Your task to perform on an android device: delete a single message in the gmail app Image 0: 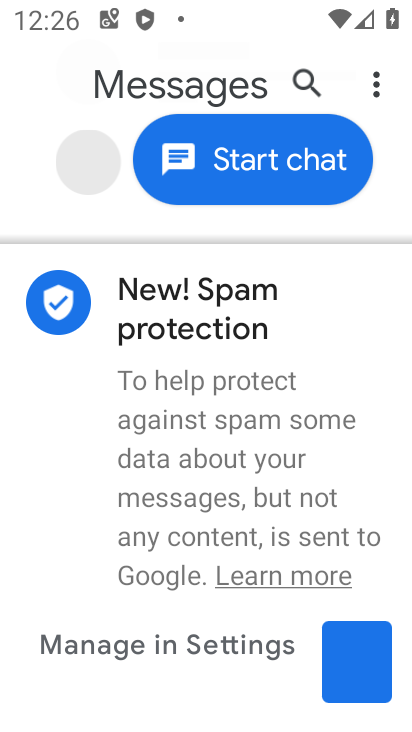
Step 0: press home button
Your task to perform on an android device: delete a single message in the gmail app Image 1: 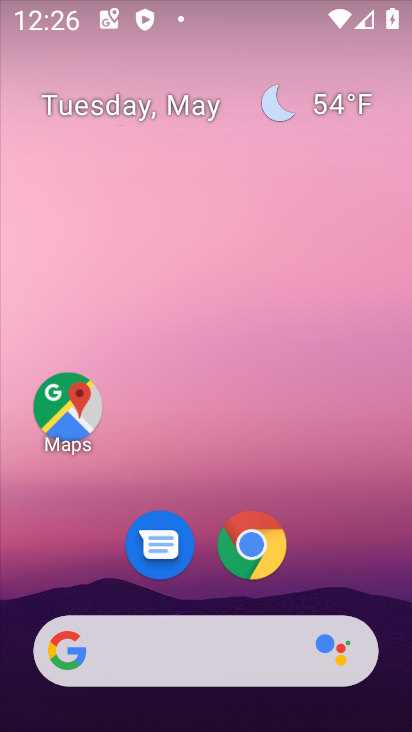
Step 1: drag from (307, 581) to (293, 7)
Your task to perform on an android device: delete a single message in the gmail app Image 2: 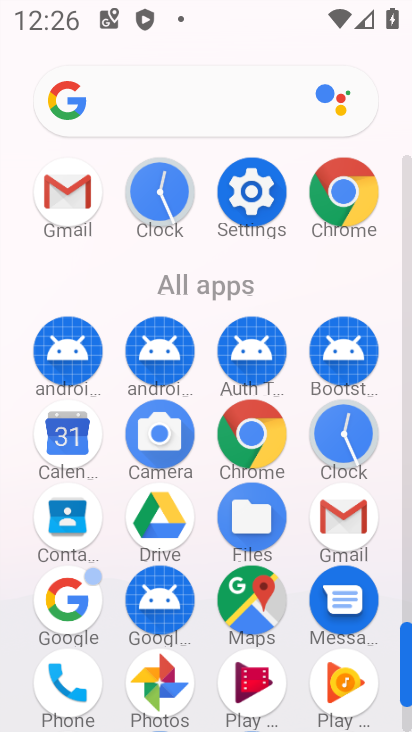
Step 2: click (49, 193)
Your task to perform on an android device: delete a single message in the gmail app Image 3: 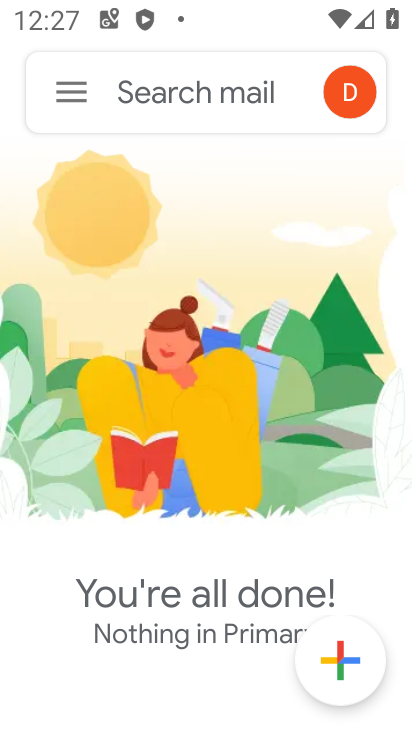
Step 3: task complete